Your task to perform on an android device: When is my next meeting? Image 0: 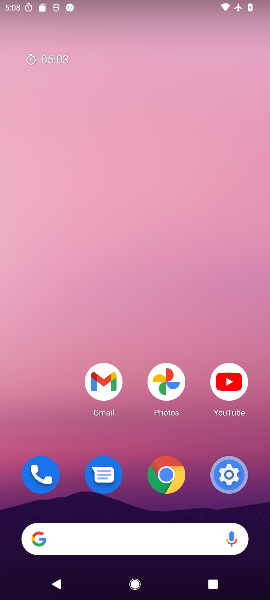
Step 0: press home button
Your task to perform on an android device: When is my next meeting? Image 1: 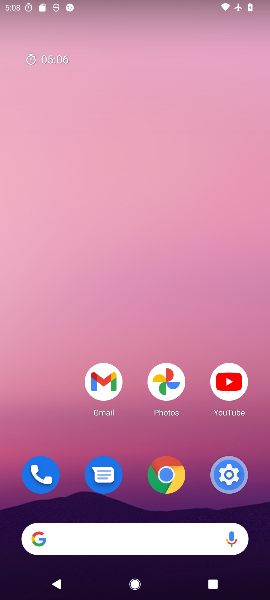
Step 1: drag from (63, 427) to (66, 172)
Your task to perform on an android device: When is my next meeting? Image 2: 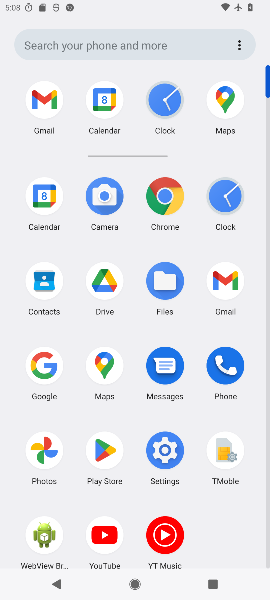
Step 2: click (41, 279)
Your task to perform on an android device: When is my next meeting? Image 3: 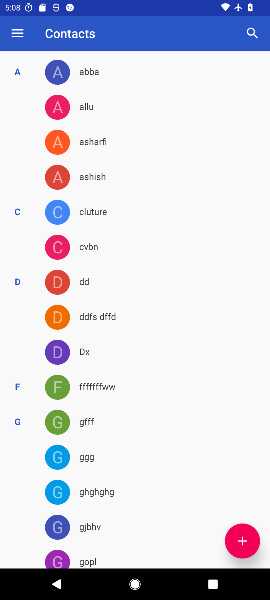
Step 3: press back button
Your task to perform on an android device: When is my next meeting? Image 4: 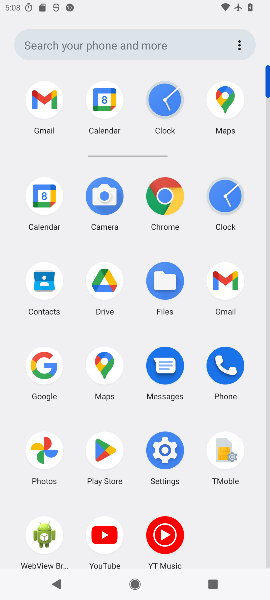
Step 4: click (44, 207)
Your task to perform on an android device: When is my next meeting? Image 5: 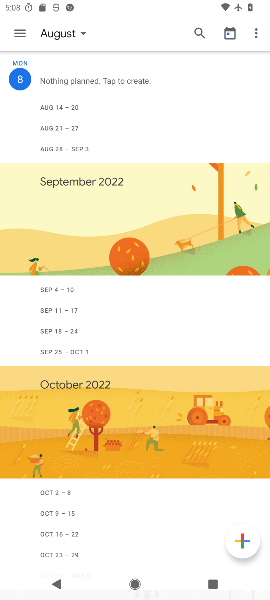
Step 5: task complete